Your task to perform on an android device: turn on the 12-hour format for clock Image 0: 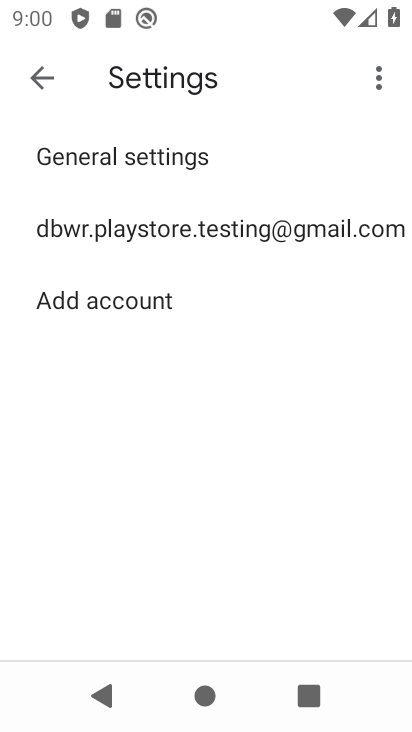
Step 0: press home button
Your task to perform on an android device: turn on the 12-hour format for clock Image 1: 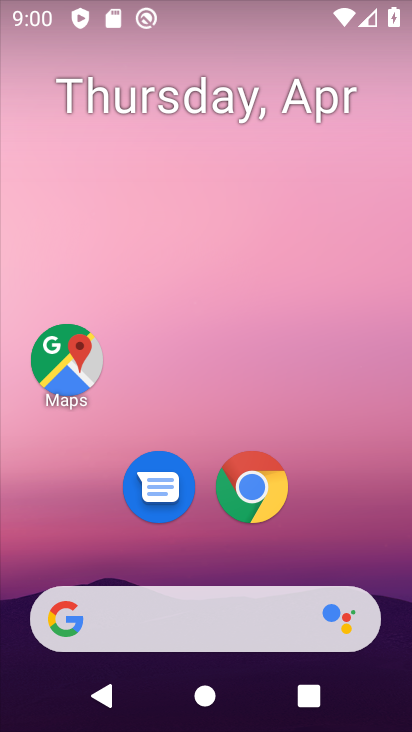
Step 1: drag from (354, 544) to (347, 133)
Your task to perform on an android device: turn on the 12-hour format for clock Image 2: 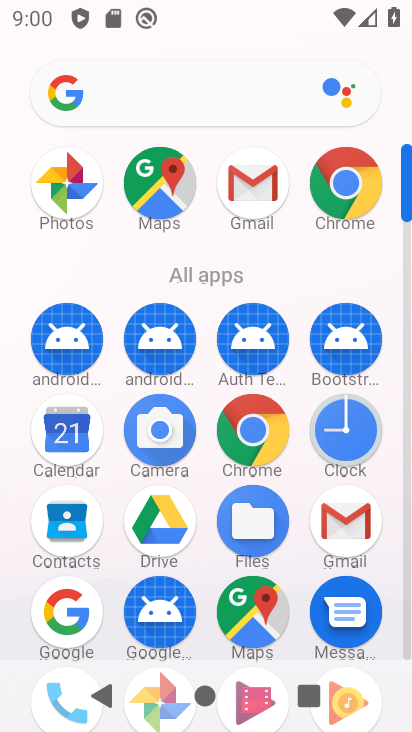
Step 2: click (360, 436)
Your task to perform on an android device: turn on the 12-hour format for clock Image 3: 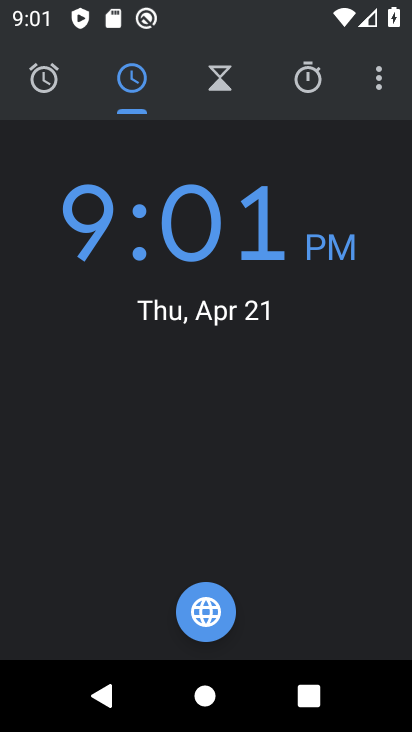
Step 3: click (380, 84)
Your task to perform on an android device: turn on the 12-hour format for clock Image 4: 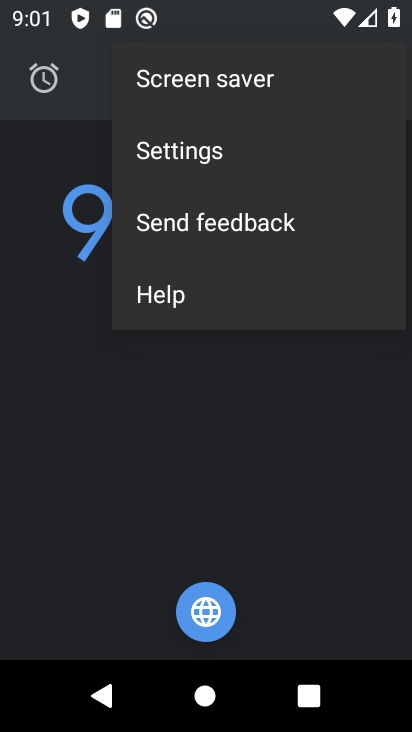
Step 4: click (282, 149)
Your task to perform on an android device: turn on the 12-hour format for clock Image 5: 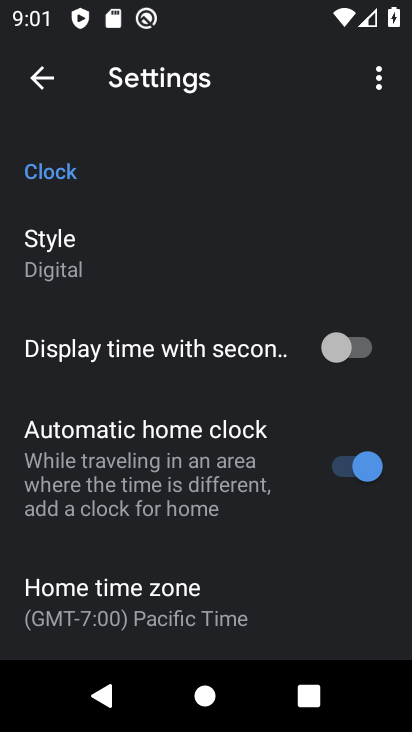
Step 5: drag from (296, 562) to (292, 372)
Your task to perform on an android device: turn on the 12-hour format for clock Image 6: 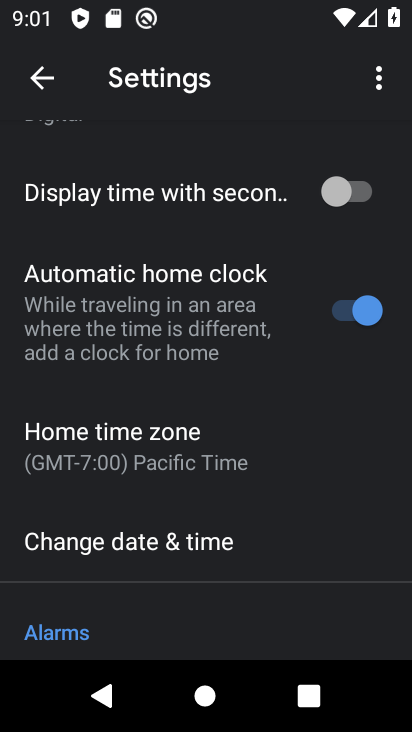
Step 6: drag from (290, 584) to (307, 376)
Your task to perform on an android device: turn on the 12-hour format for clock Image 7: 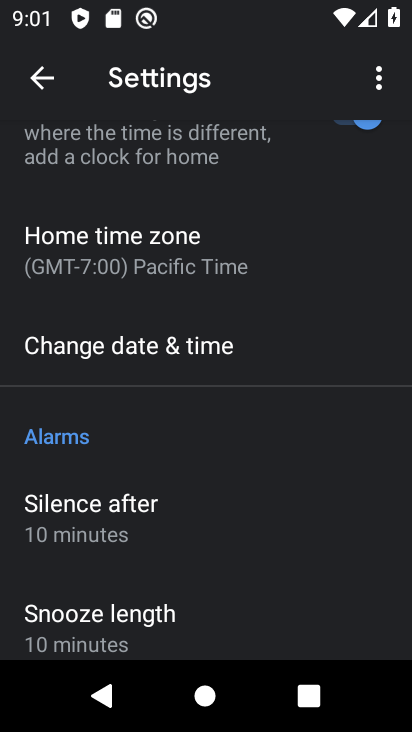
Step 7: drag from (282, 561) to (301, 396)
Your task to perform on an android device: turn on the 12-hour format for clock Image 8: 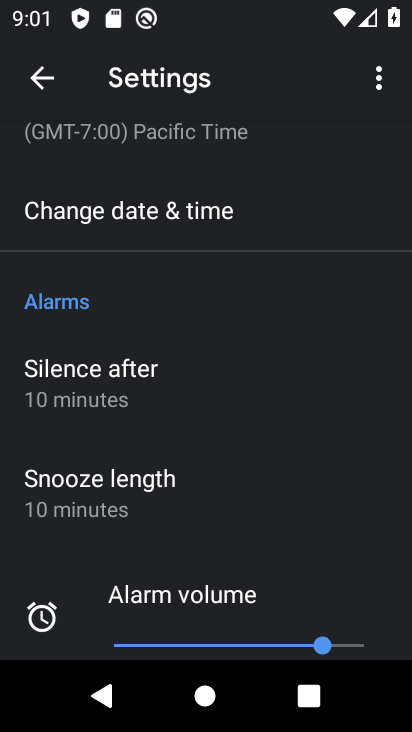
Step 8: drag from (315, 565) to (331, 246)
Your task to perform on an android device: turn on the 12-hour format for clock Image 9: 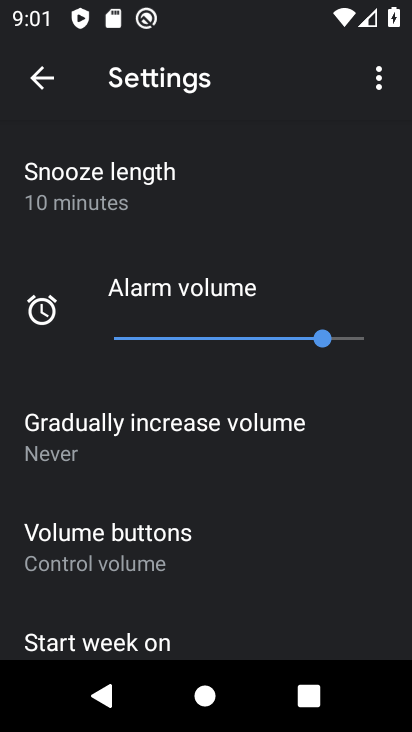
Step 9: drag from (337, 222) to (343, 429)
Your task to perform on an android device: turn on the 12-hour format for clock Image 10: 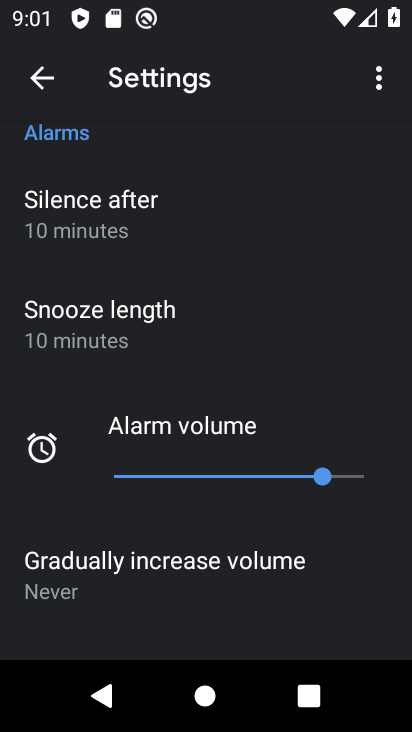
Step 10: drag from (352, 247) to (345, 413)
Your task to perform on an android device: turn on the 12-hour format for clock Image 11: 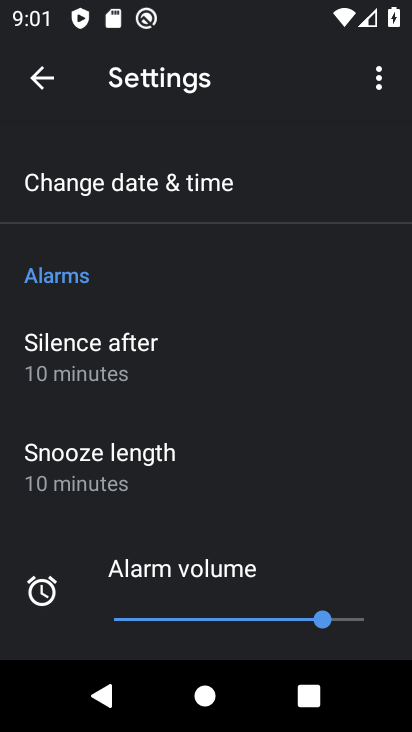
Step 11: drag from (334, 202) to (313, 464)
Your task to perform on an android device: turn on the 12-hour format for clock Image 12: 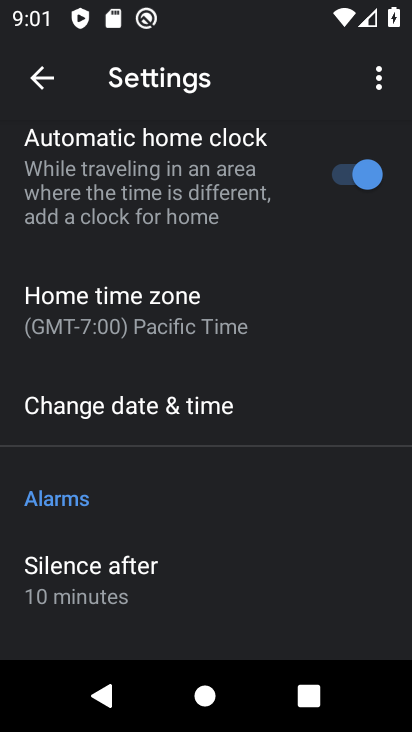
Step 12: click (201, 418)
Your task to perform on an android device: turn on the 12-hour format for clock Image 13: 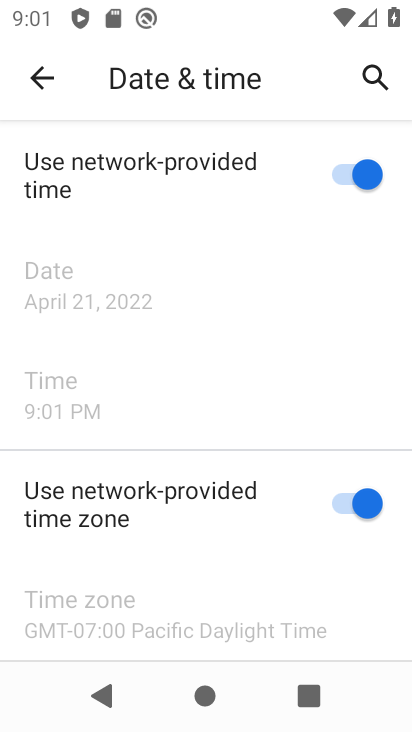
Step 13: task complete